Your task to perform on an android device: Search for seafood restaurants on Google Maps Image 0: 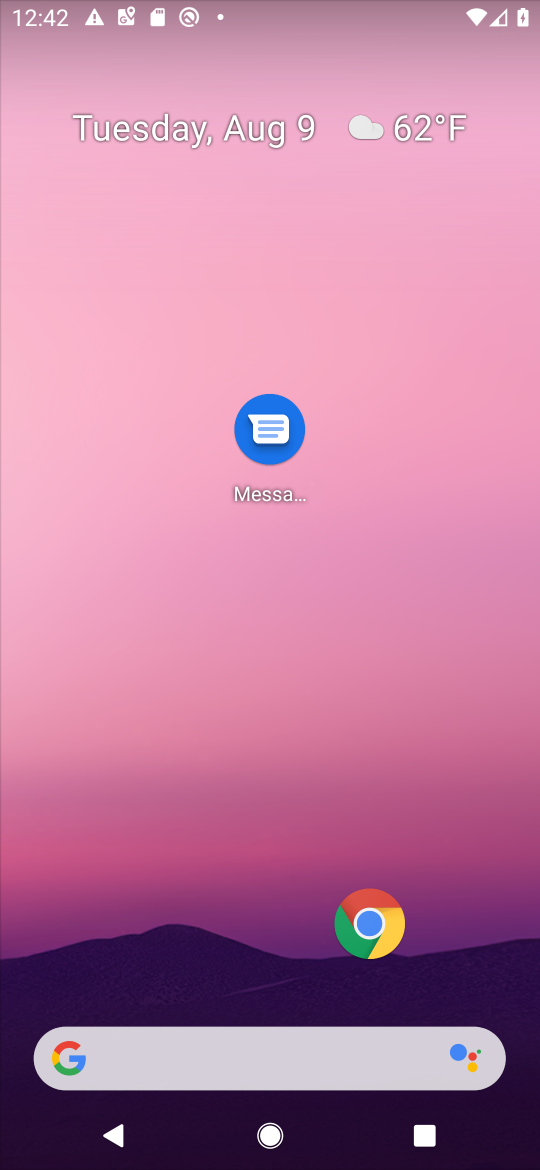
Step 0: drag from (31, 1122) to (282, 233)
Your task to perform on an android device: Search for seafood restaurants on Google Maps Image 1: 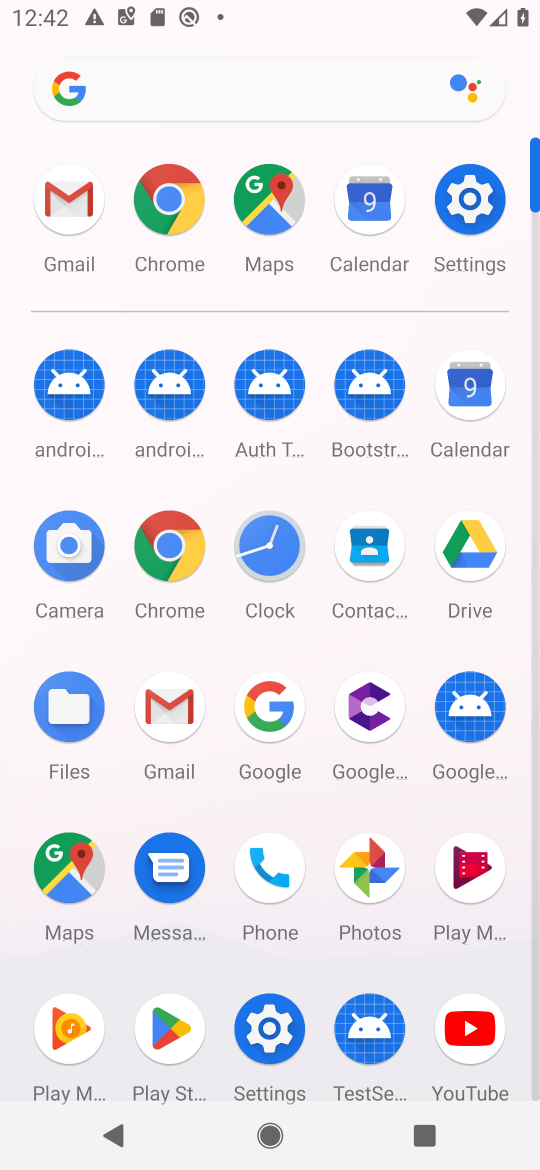
Step 1: click (43, 881)
Your task to perform on an android device: Search for seafood restaurants on Google Maps Image 2: 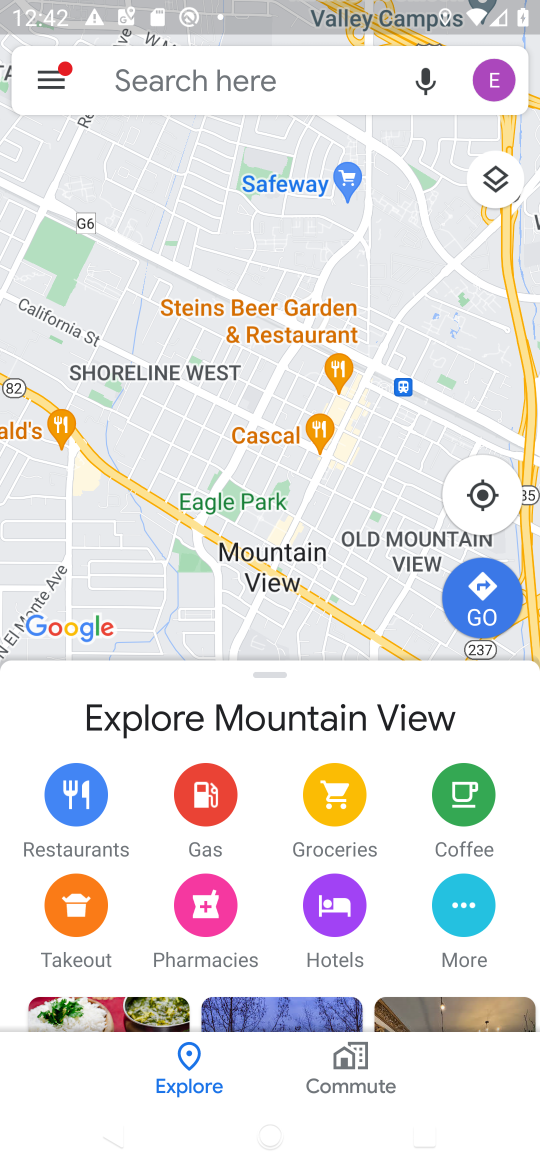
Step 2: click (143, 71)
Your task to perform on an android device: Search for seafood restaurants on Google Maps Image 3: 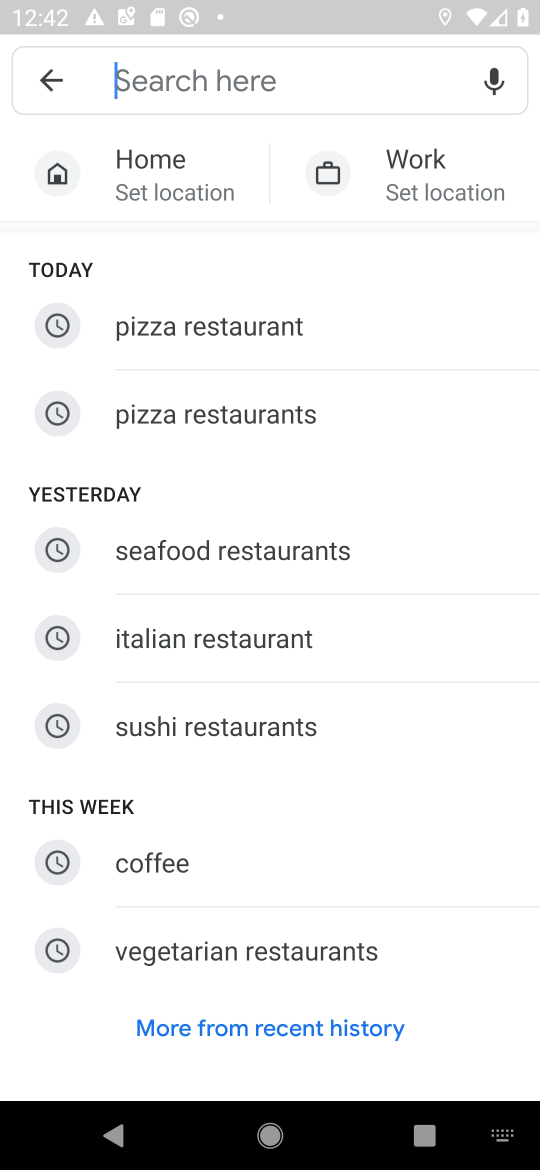
Step 3: click (224, 564)
Your task to perform on an android device: Search for seafood restaurants on Google Maps Image 4: 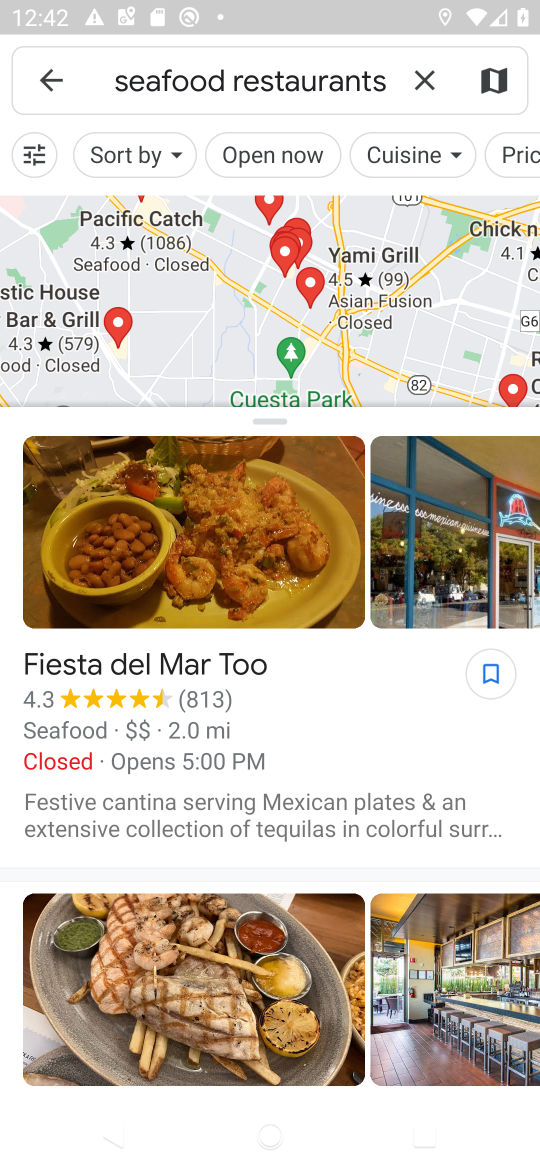
Step 4: task complete